Your task to perform on an android device: turn off airplane mode Image 0: 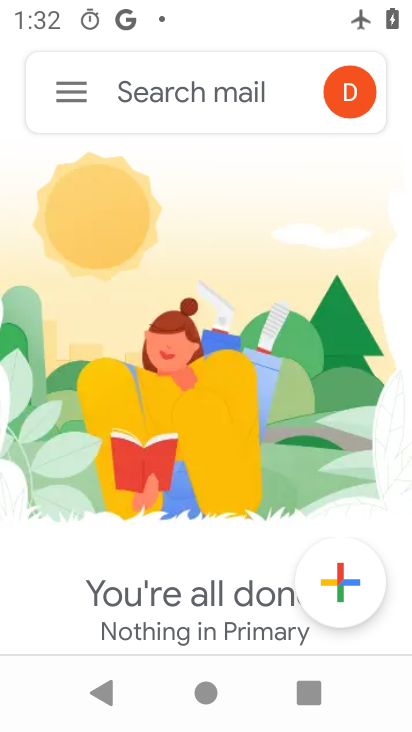
Step 0: press home button
Your task to perform on an android device: turn off airplane mode Image 1: 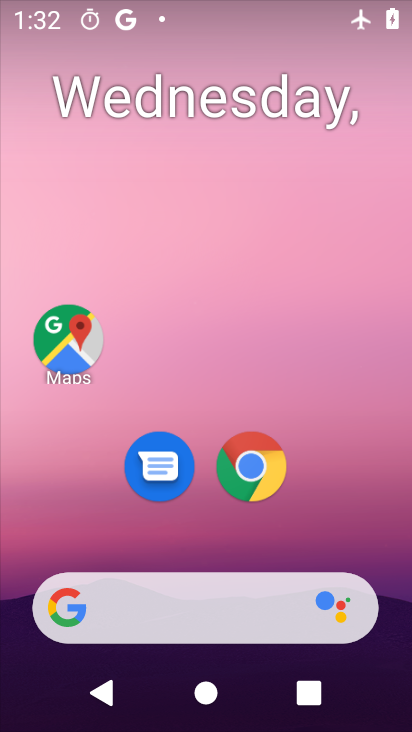
Step 1: drag from (344, 474) to (286, 86)
Your task to perform on an android device: turn off airplane mode Image 2: 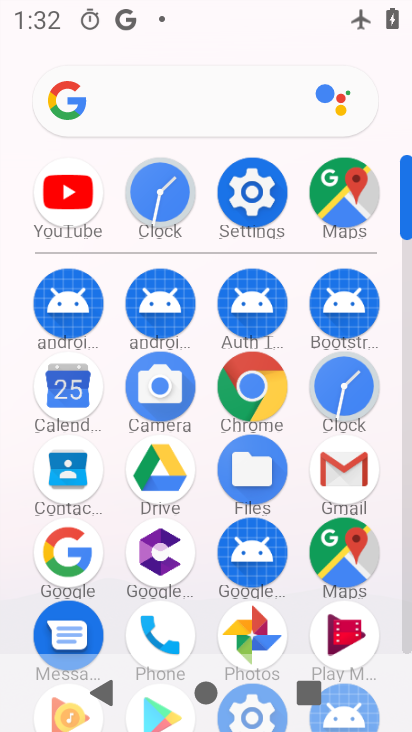
Step 2: click (252, 209)
Your task to perform on an android device: turn off airplane mode Image 3: 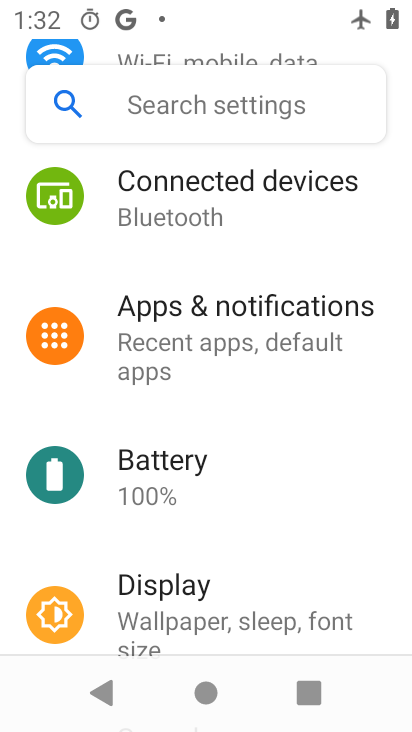
Step 3: drag from (248, 203) to (257, 496)
Your task to perform on an android device: turn off airplane mode Image 4: 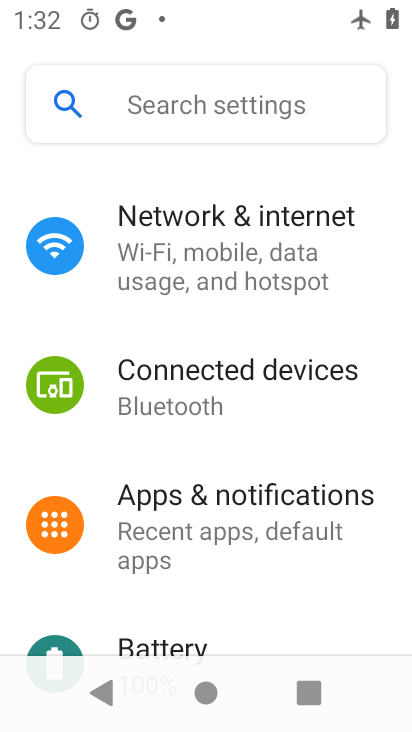
Step 4: click (190, 297)
Your task to perform on an android device: turn off airplane mode Image 5: 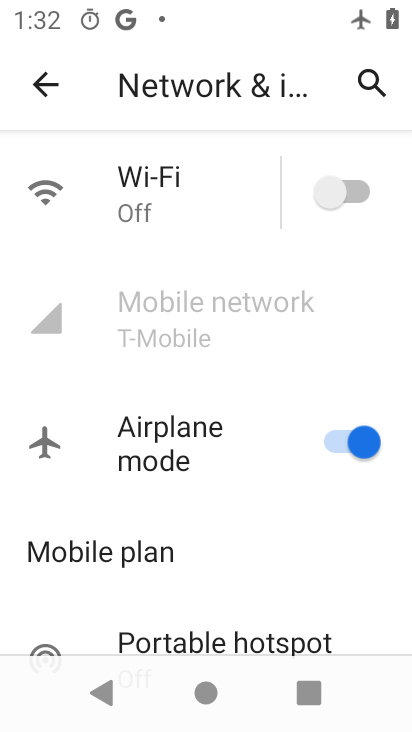
Step 5: click (363, 452)
Your task to perform on an android device: turn off airplane mode Image 6: 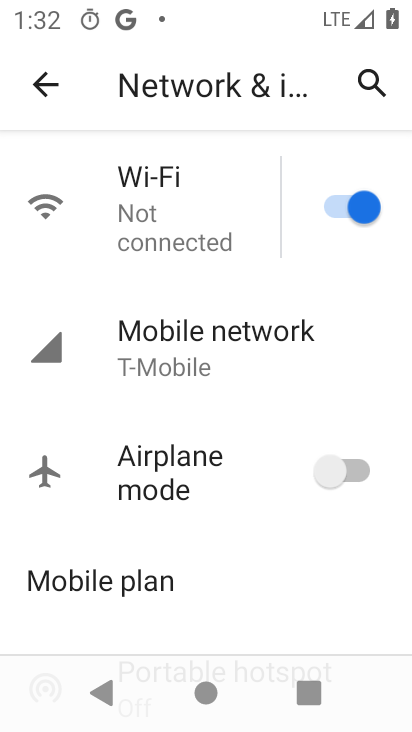
Step 6: task complete